Your task to perform on an android device: change the upload size in google photos Image 0: 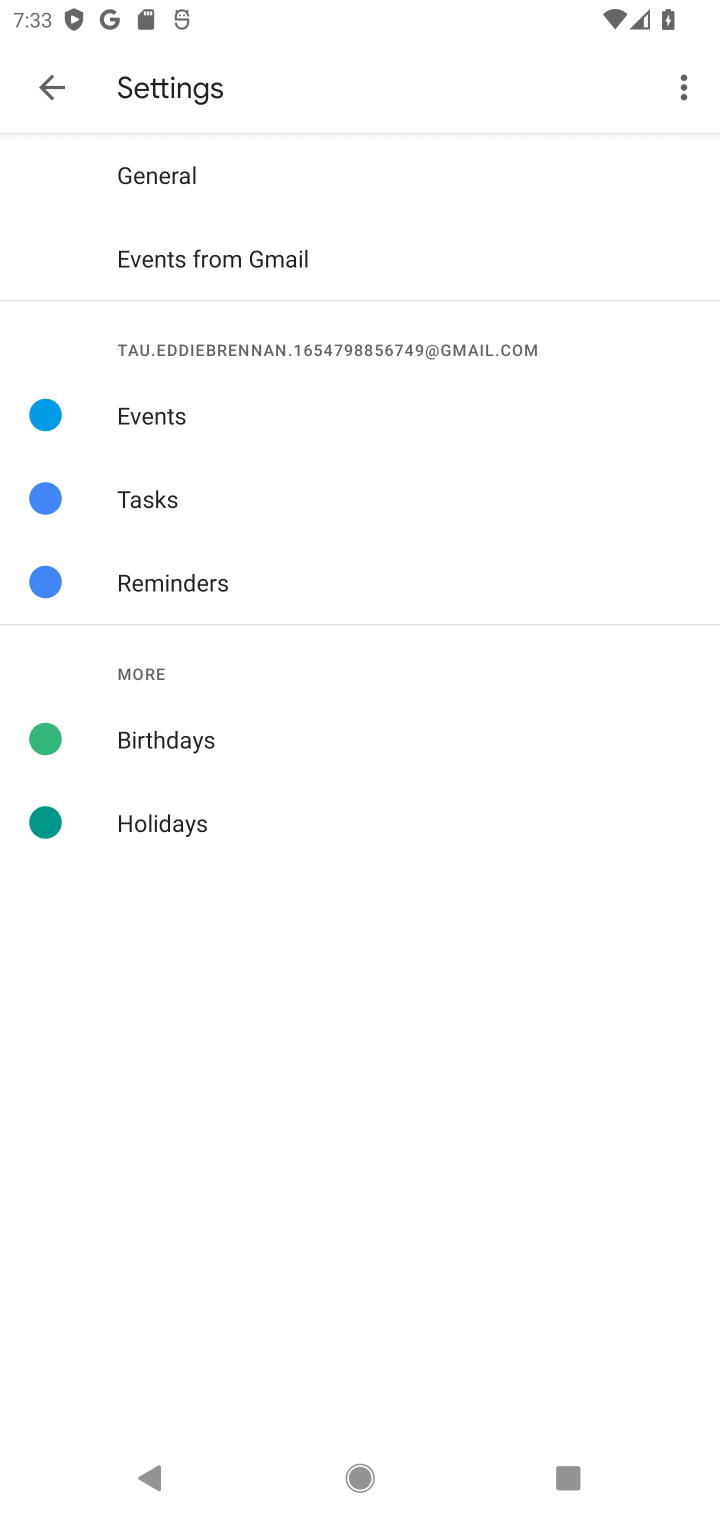
Step 0: press home button
Your task to perform on an android device: change the upload size in google photos Image 1: 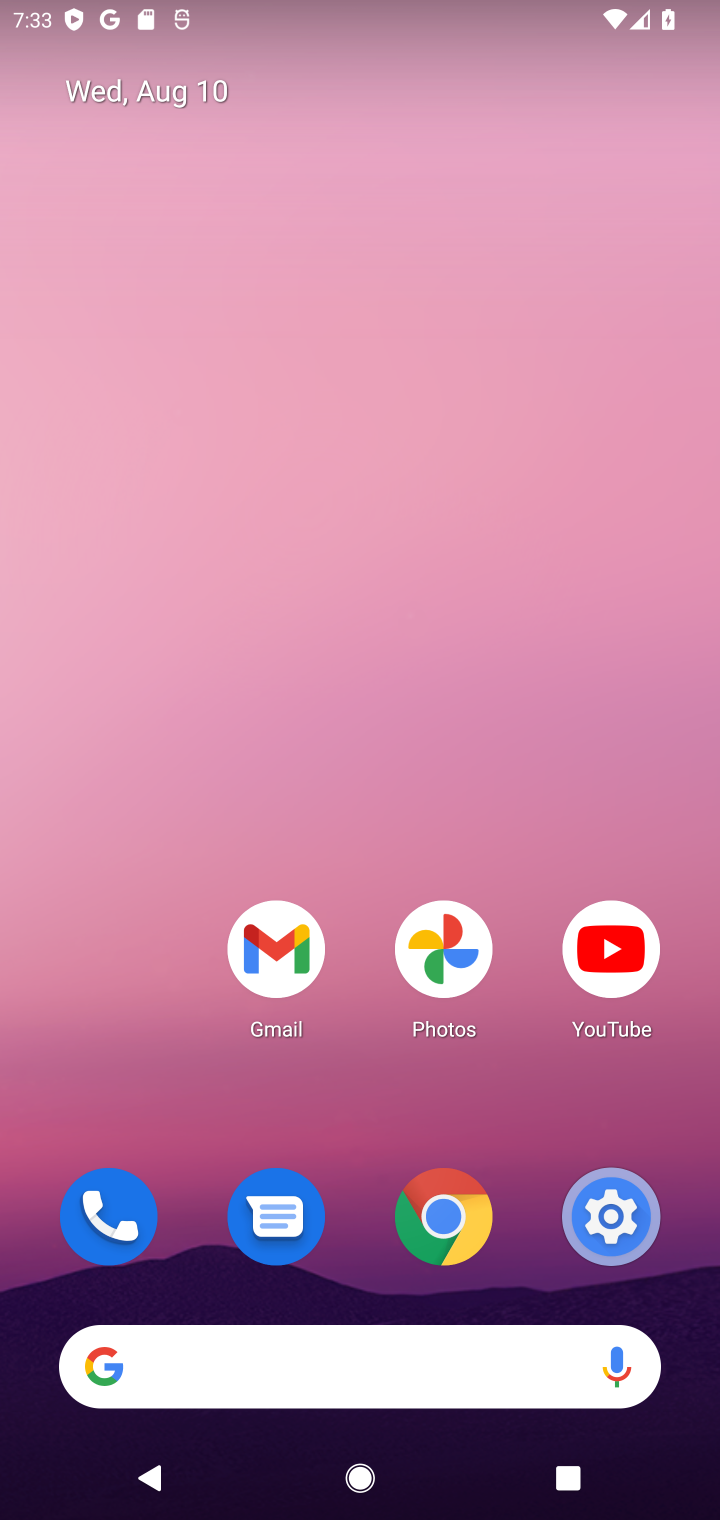
Step 1: drag from (27, 1375) to (423, 363)
Your task to perform on an android device: change the upload size in google photos Image 2: 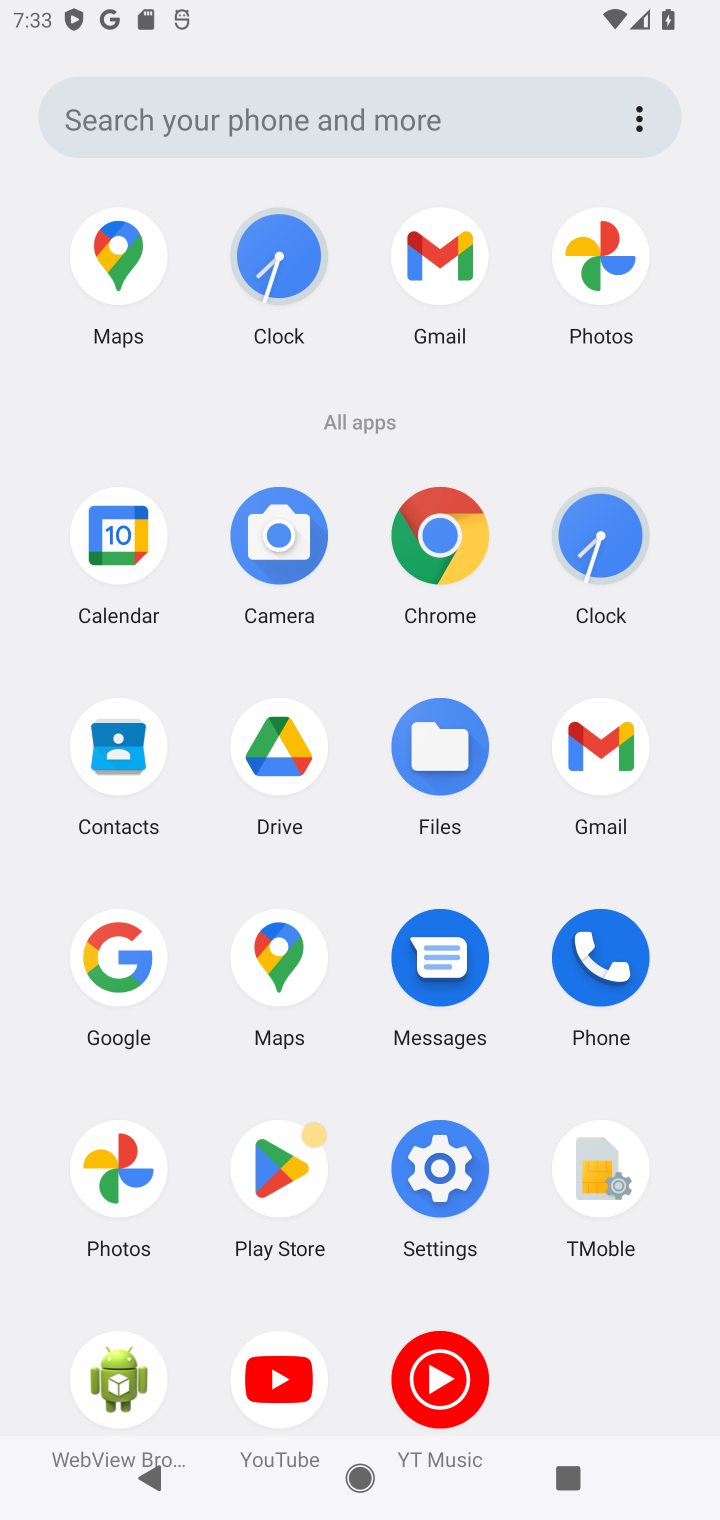
Step 2: click (124, 1173)
Your task to perform on an android device: change the upload size in google photos Image 3: 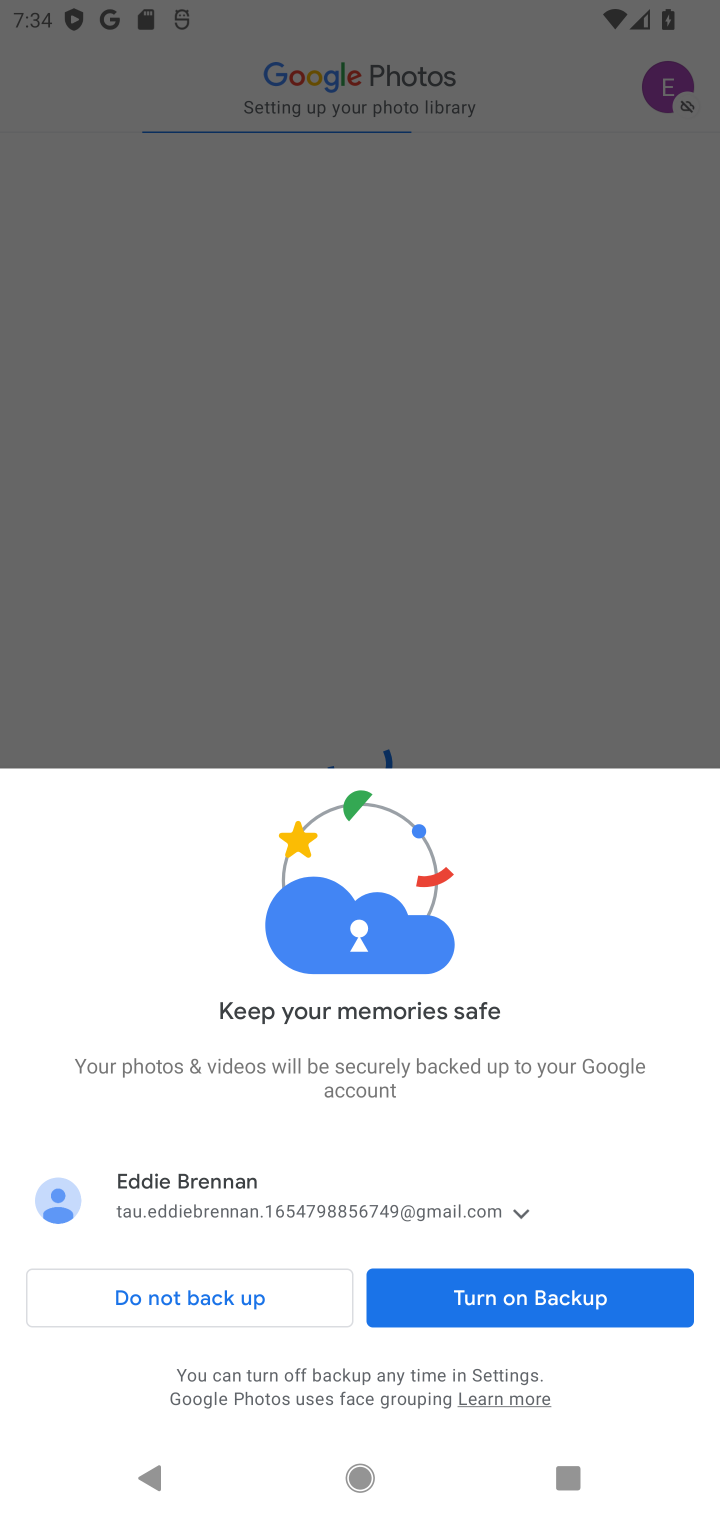
Step 3: click (277, 1318)
Your task to perform on an android device: change the upload size in google photos Image 4: 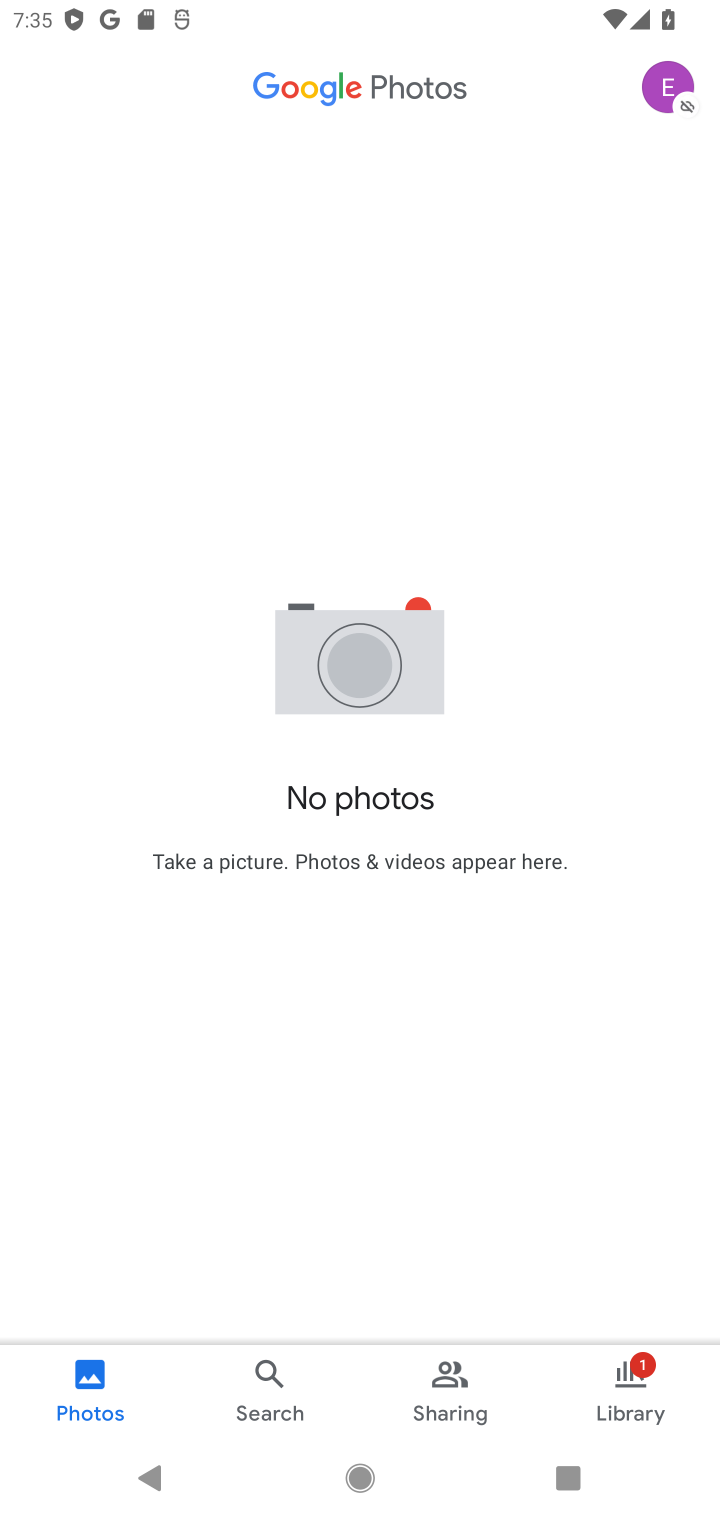
Step 4: drag from (418, 715) to (377, 1340)
Your task to perform on an android device: change the upload size in google photos Image 5: 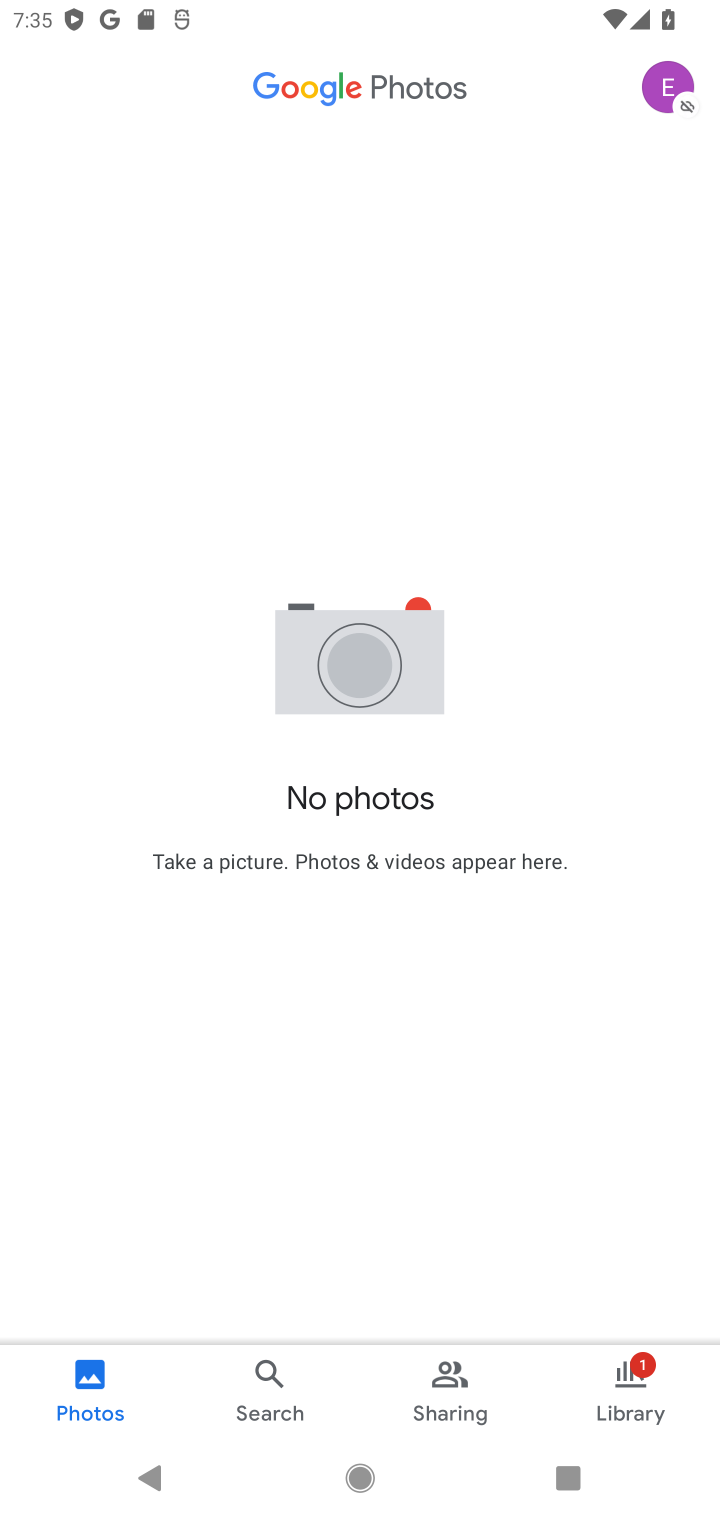
Step 5: click (670, 78)
Your task to perform on an android device: change the upload size in google photos Image 6: 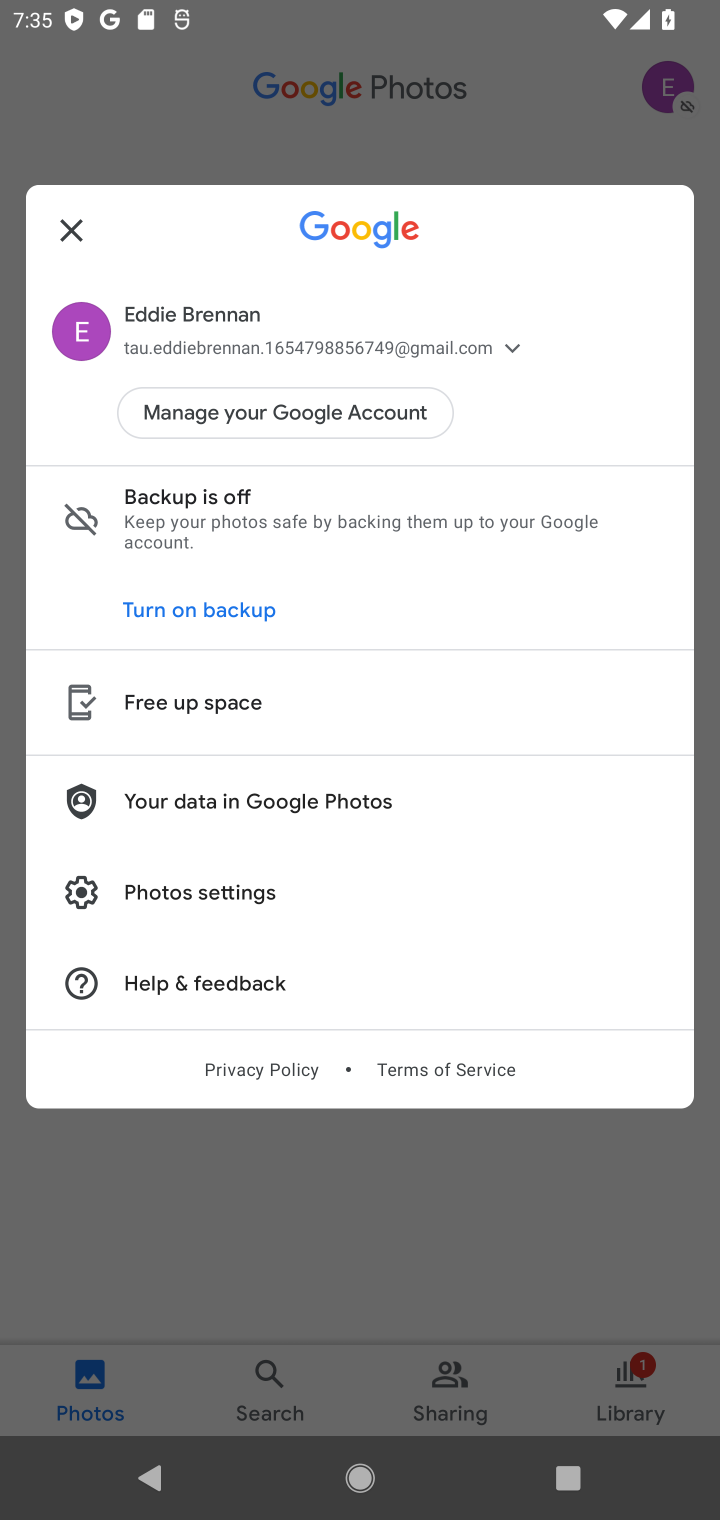
Step 6: click (204, 900)
Your task to perform on an android device: change the upload size in google photos Image 7: 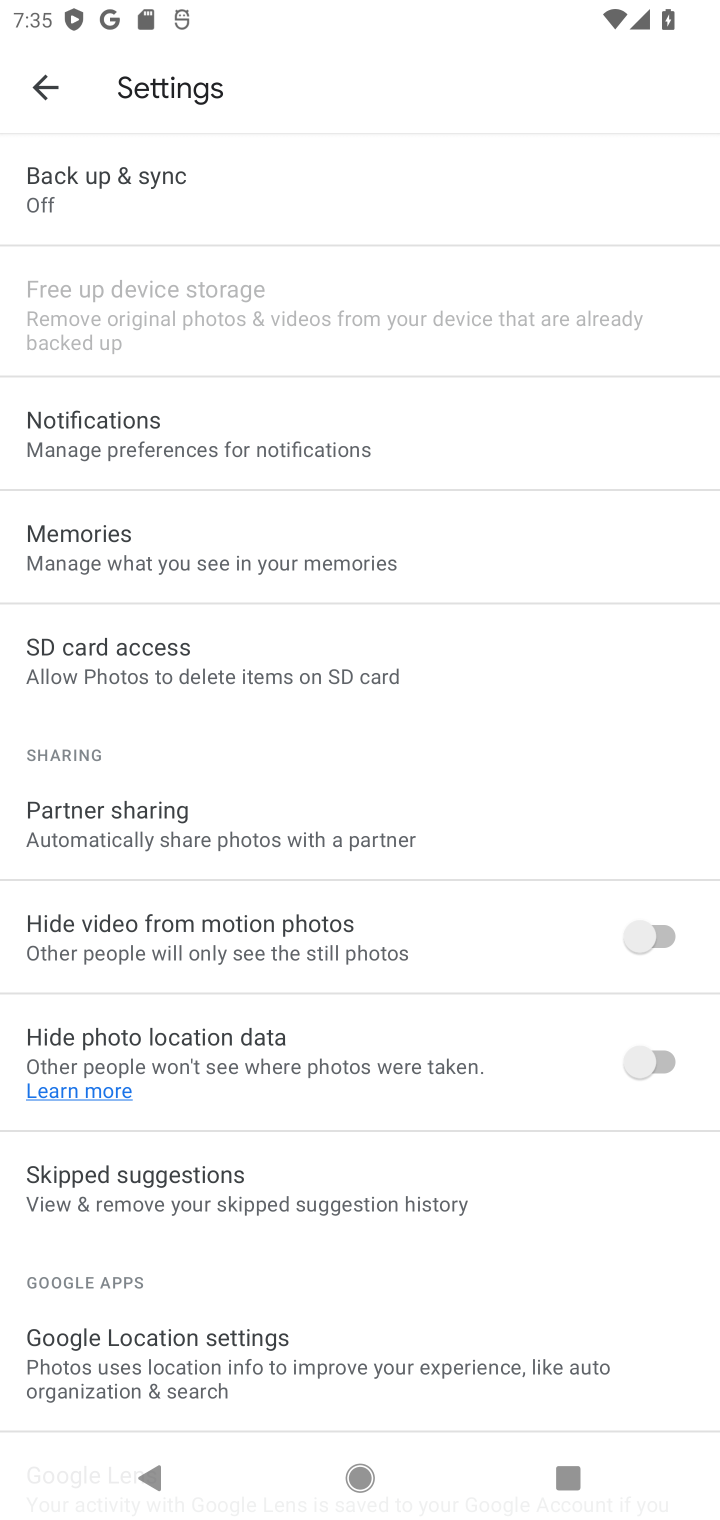
Step 7: task complete